Your task to perform on an android device: Open sound settings Image 0: 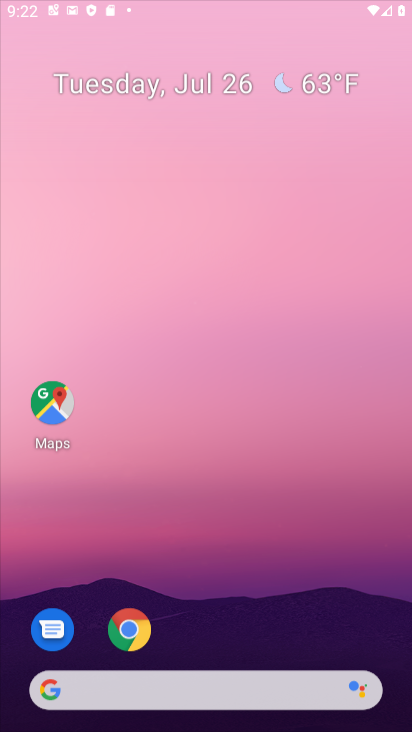
Step 0: press home button
Your task to perform on an android device: Open sound settings Image 1: 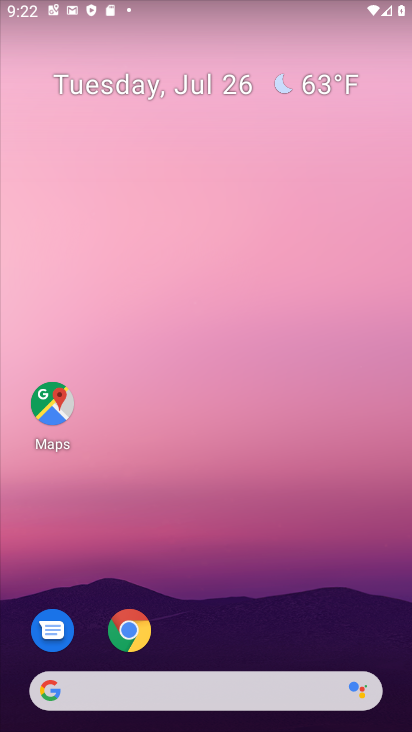
Step 1: drag from (203, 648) to (245, 67)
Your task to perform on an android device: Open sound settings Image 2: 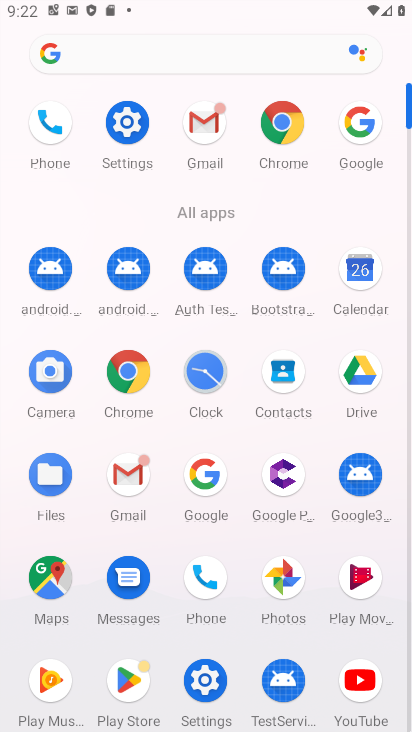
Step 2: click (123, 120)
Your task to perform on an android device: Open sound settings Image 3: 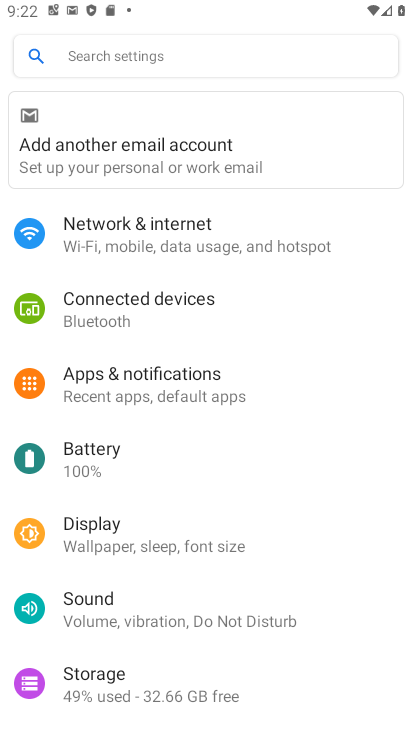
Step 3: click (123, 594)
Your task to perform on an android device: Open sound settings Image 4: 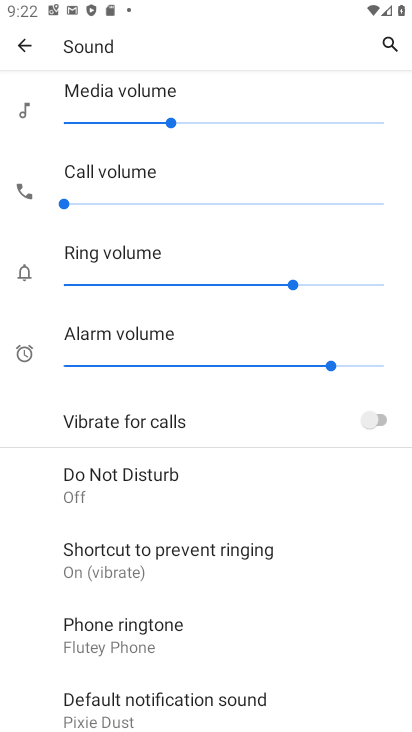
Step 4: drag from (201, 655) to (236, 103)
Your task to perform on an android device: Open sound settings Image 5: 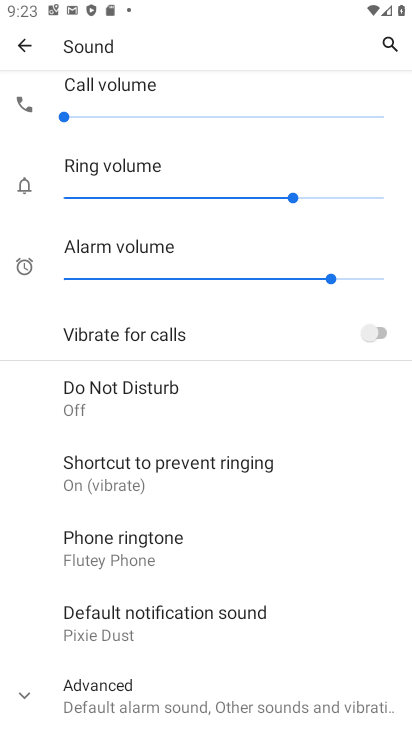
Step 5: click (20, 688)
Your task to perform on an android device: Open sound settings Image 6: 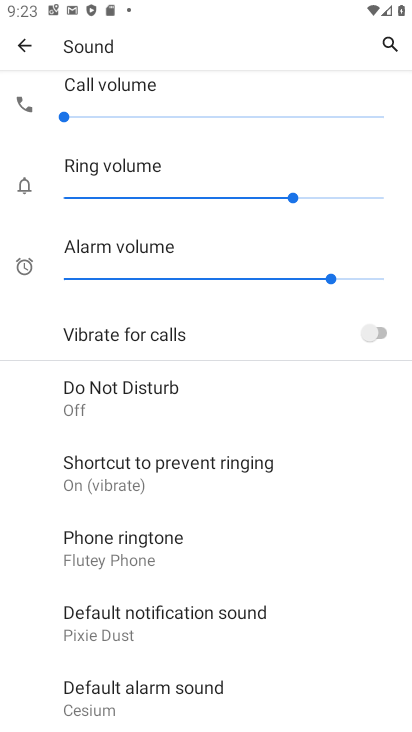
Step 6: task complete